Your task to perform on an android device: Go to Maps Image 0: 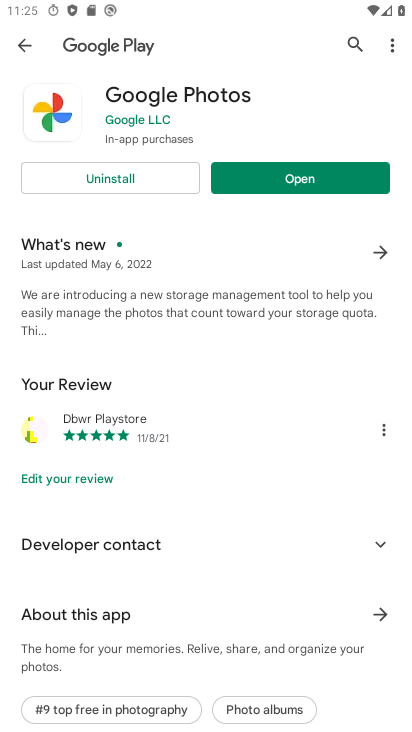
Step 0: press home button
Your task to perform on an android device: Go to Maps Image 1: 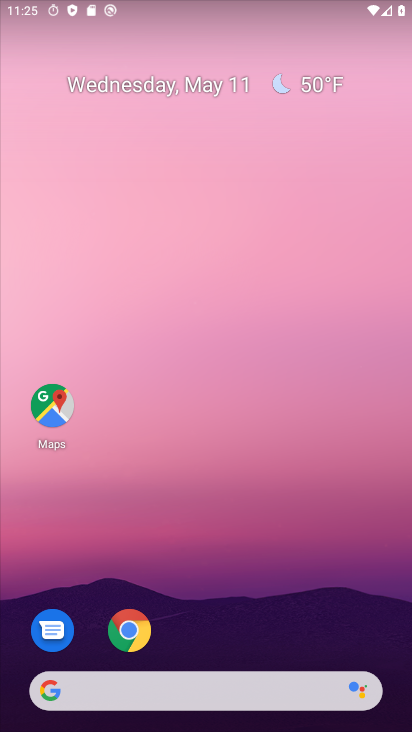
Step 1: click (48, 404)
Your task to perform on an android device: Go to Maps Image 2: 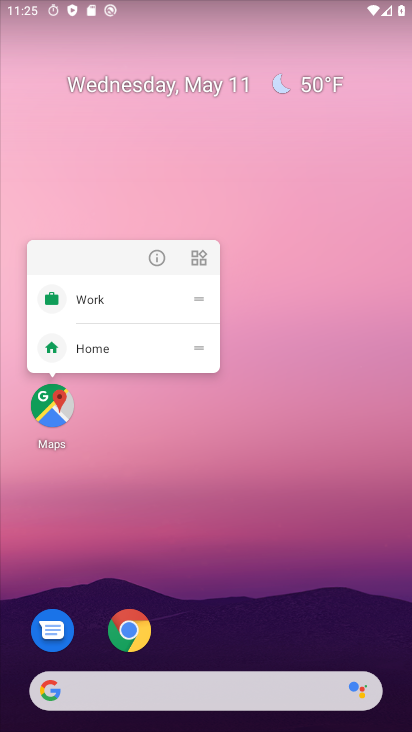
Step 2: click (50, 407)
Your task to perform on an android device: Go to Maps Image 3: 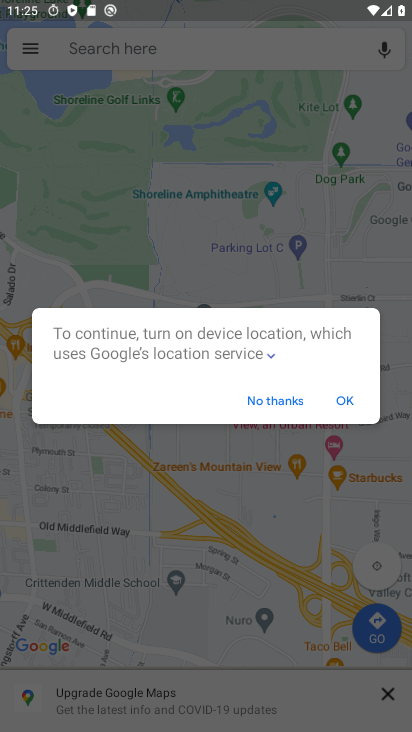
Step 3: task complete